Your task to perform on an android device: change alarm snooze length Image 0: 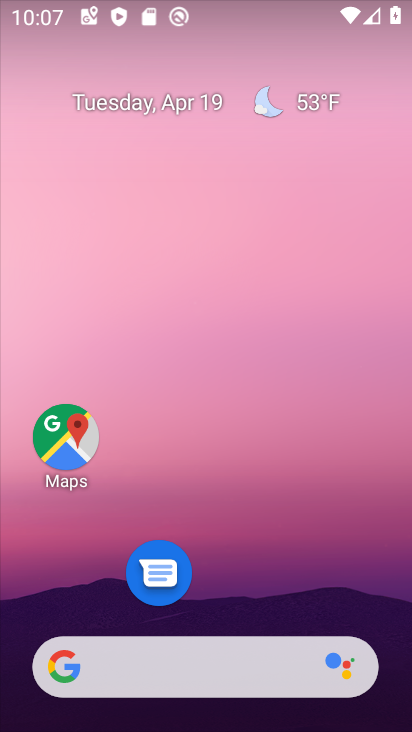
Step 0: drag from (227, 479) to (209, 85)
Your task to perform on an android device: change alarm snooze length Image 1: 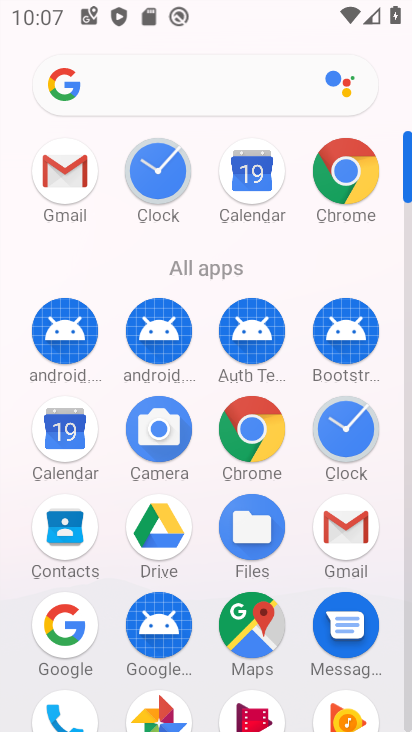
Step 1: click (167, 165)
Your task to perform on an android device: change alarm snooze length Image 2: 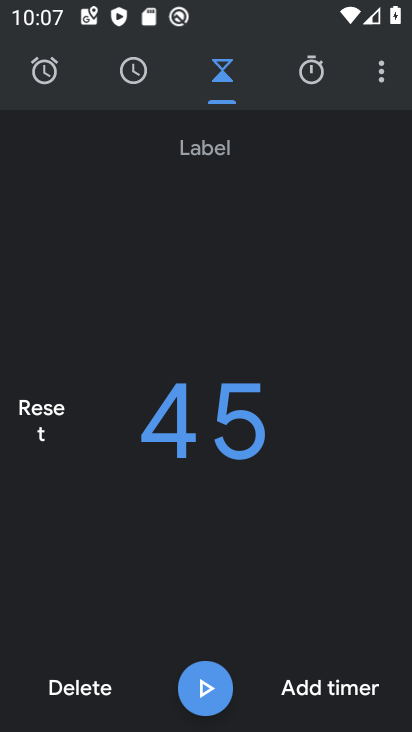
Step 2: click (377, 76)
Your task to perform on an android device: change alarm snooze length Image 3: 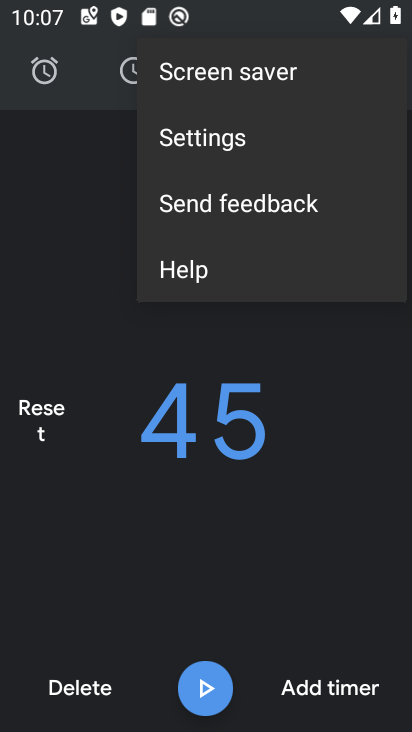
Step 3: click (270, 134)
Your task to perform on an android device: change alarm snooze length Image 4: 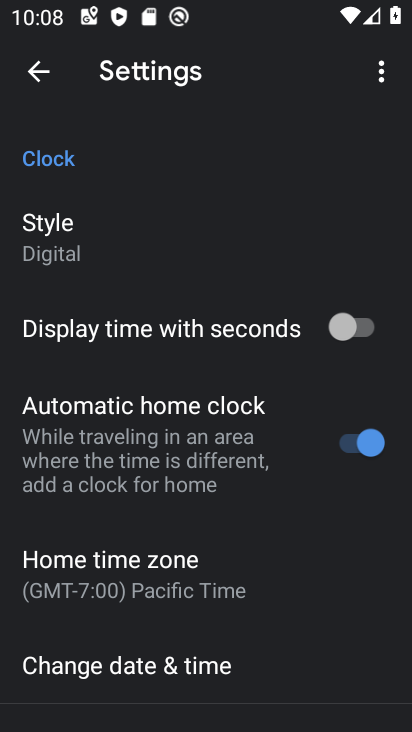
Step 4: drag from (258, 609) to (231, 204)
Your task to perform on an android device: change alarm snooze length Image 5: 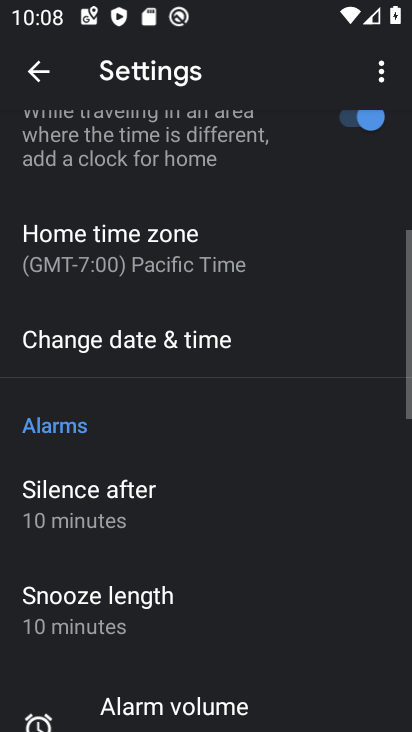
Step 5: drag from (236, 554) to (242, 270)
Your task to perform on an android device: change alarm snooze length Image 6: 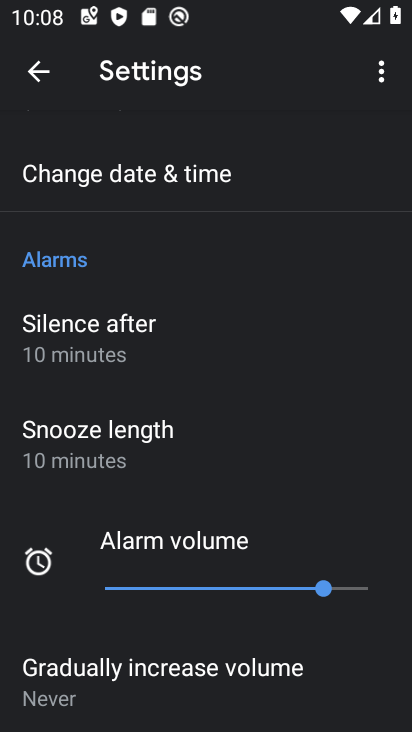
Step 6: click (144, 436)
Your task to perform on an android device: change alarm snooze length Image 7: 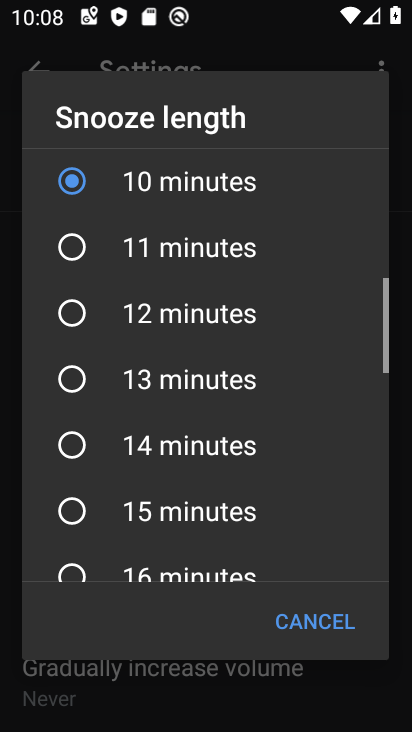
Step 7: click (162, 504)
Your task to perform on an android device: change alarm snooze length Image 8: 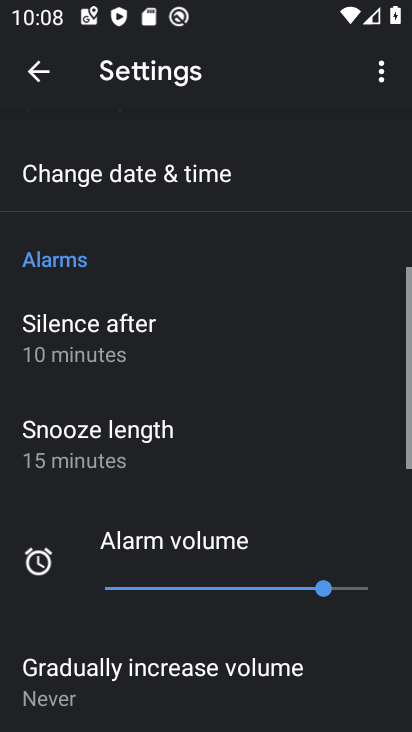
Step 8: task complete